Your task to perform on an android device: turn on showing notifications on the lock screen Image 0: 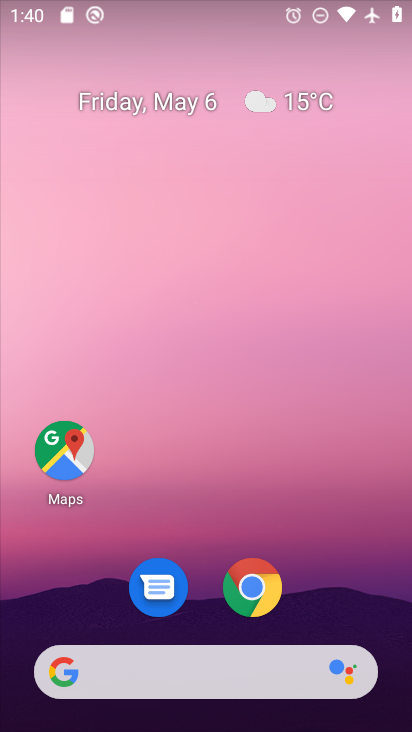
Step 0: drag from (327, 584) to (225, 17)
Your task to perform on an android device: turn on showing notifications on the lock screen Image 1: 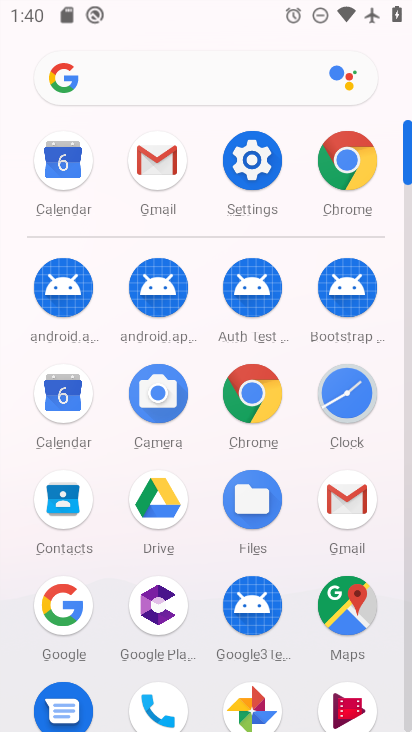
Step 1: click (253, 174)
Your task to perform on an android device: turn on showing notifications on the lock screen Image 2: 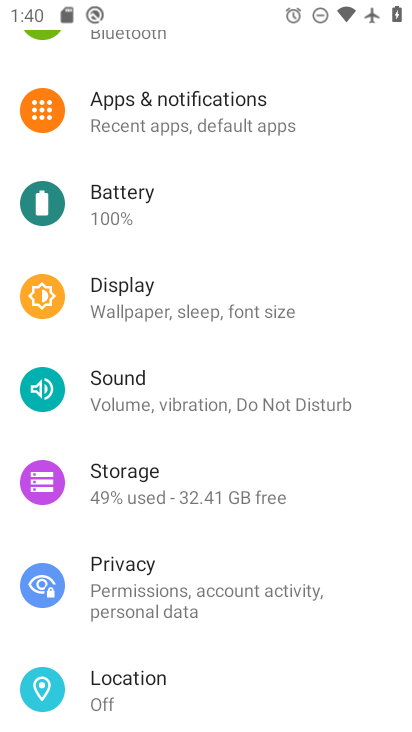
Step 2: click (201, 122)
Your task to perform on an android device: turn on showing notifications on the lock screen Image 3: 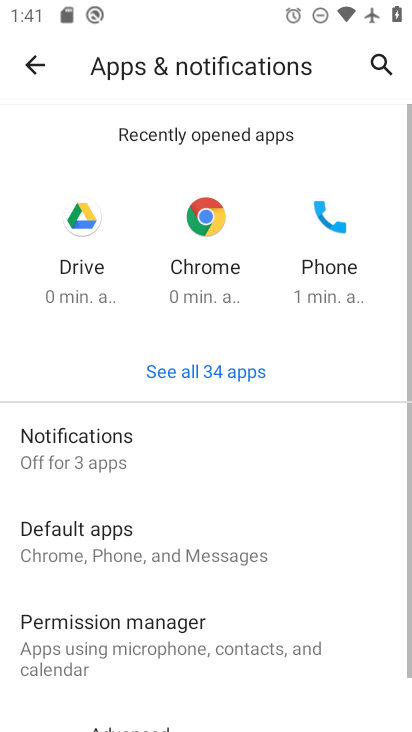
Step 3: click (162, 464)
Your task to perform on an android device: turn on showing notifications on the lock screen Image 4: 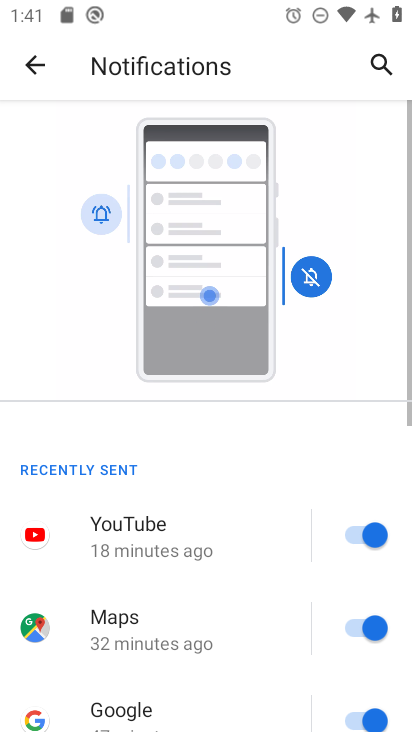
Step 4: drag from (243, 658) to (228, 209)
Your task to perform on an android device: turn on showing notifications on the lock screen Image 5: 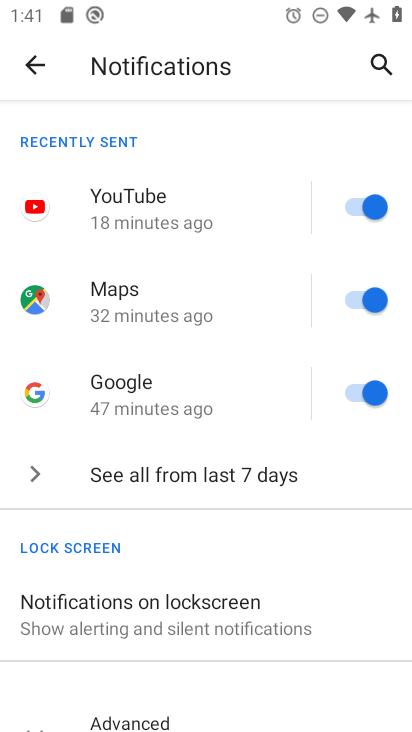
Step 5: click (206, 607)
Your task to perform on an android device: turn on showing notifications on the lock screen Image 6: 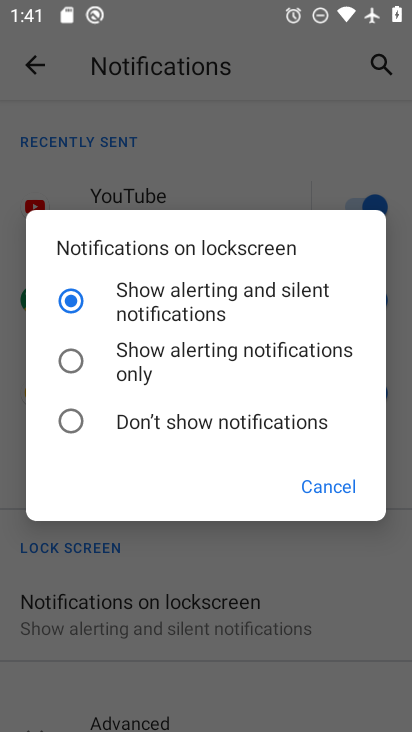
Step 6: task complete